Your task to perform on an android device: Go to settings Image 0: 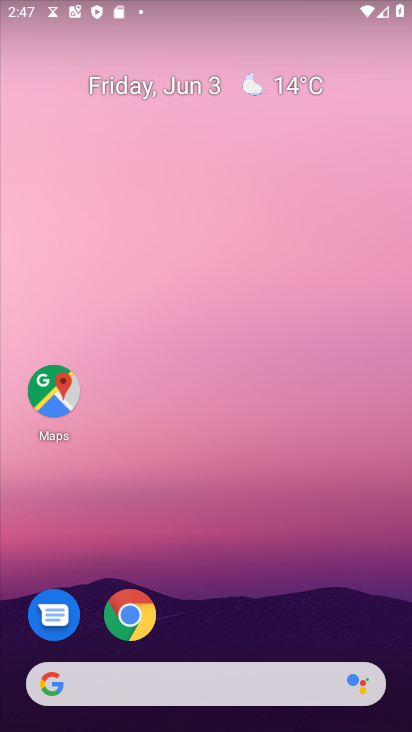
Step 0: press home button
Your task to perform on an android device: Go to settings Image 1: 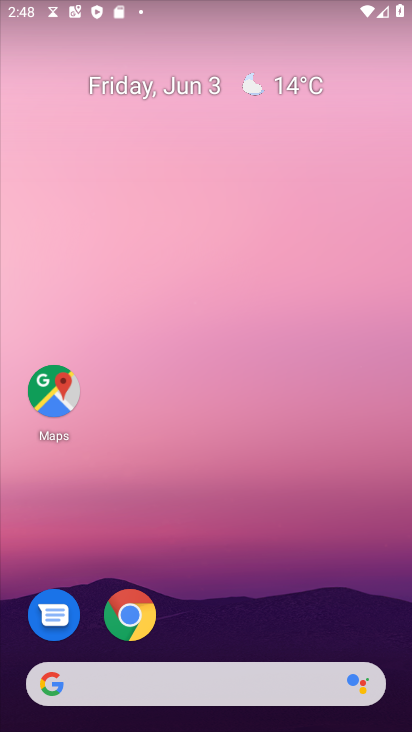
Step 1: drag from (365, 636) to (250, 29)
Your task to perform on an android device: Go to settings Image 2: 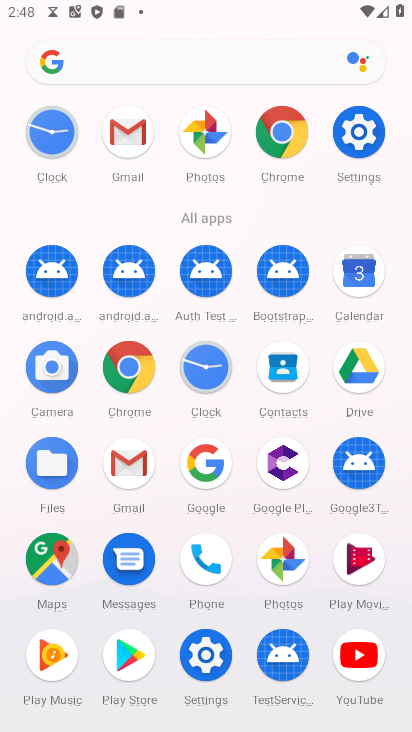
Step 2: click (356, 131)
Your task to perform on an android device: Go to settings Image 3: 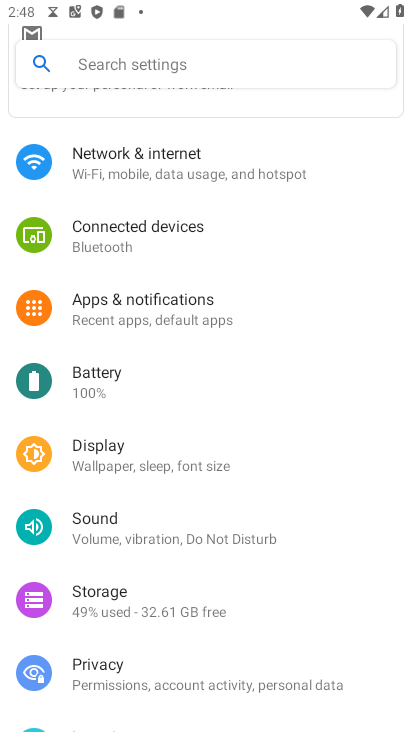
Step 3: task complete